Your task to perform on an android device: empty trash in the gmail app Image 0: 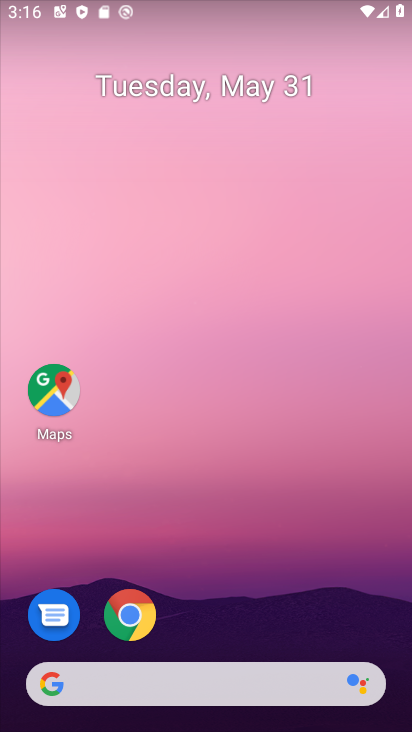
Step 0: drag from (281, 672) to (174, 115)
Your task to perform on an android device: empty trash in the gmail app Image 1: 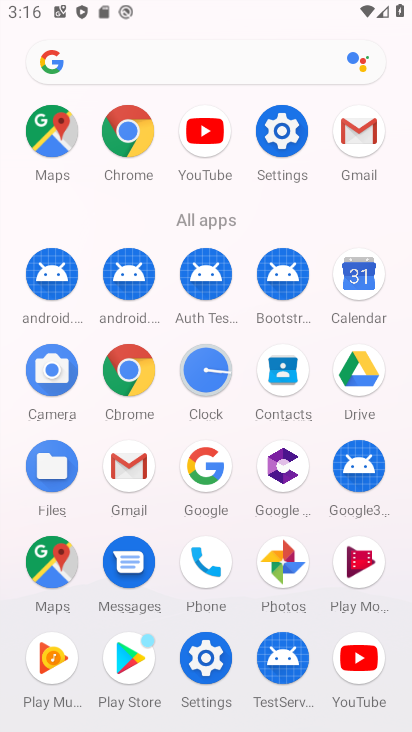
Step 1: click (128, 454)
Your task to perform on an android device: empty trash in the gmail app Image 2: 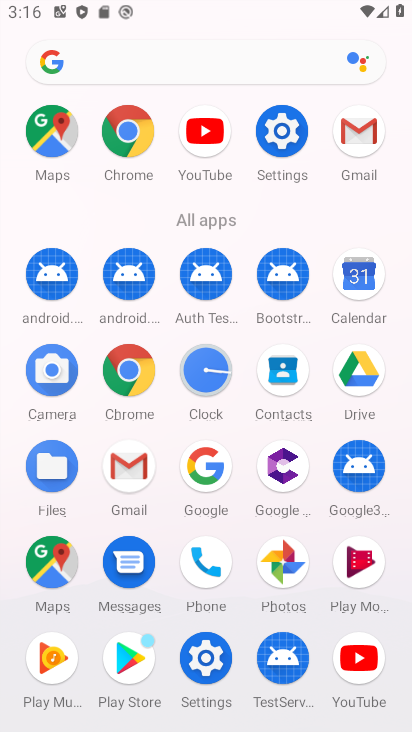
Step 2: click (128, 454)
Your task to perform on an android device: empty trash in the gmail app Image 3: 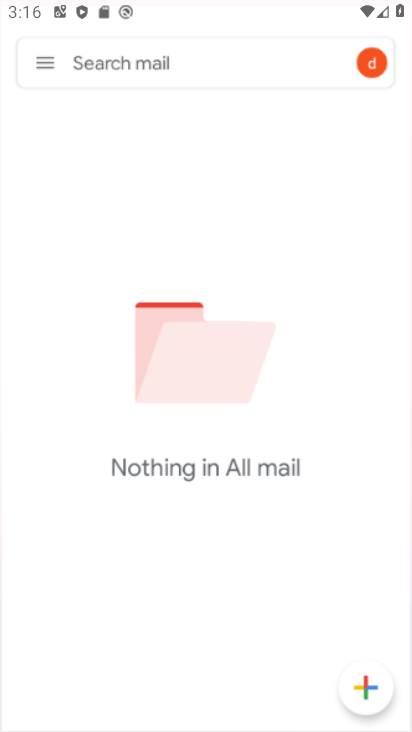
Step 3: click (129, 456)
Your task to perform on an android device: empty trash in the gmail app Image 4: 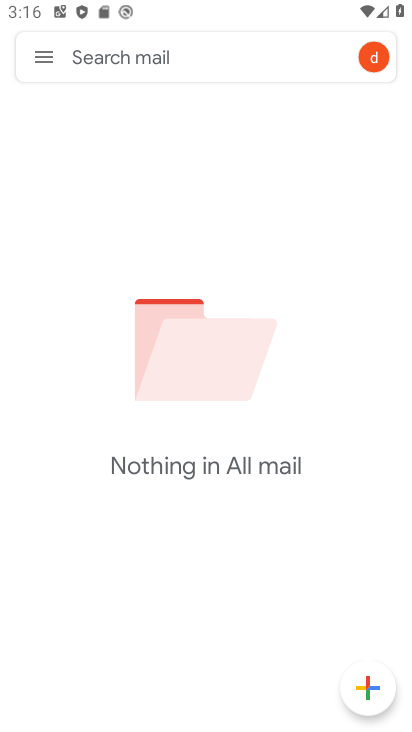
Step 4: click (42, 58)
Your task to perform on an android device: empty trash in the gmail app Image 5: 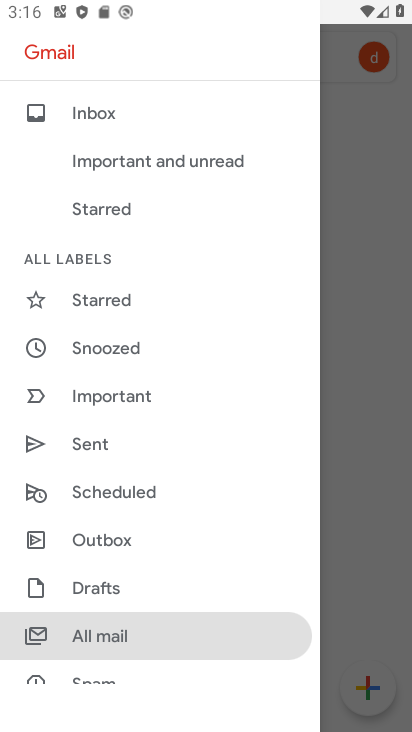
Step 5: drag from (138, 529) to (144, 157)
Your task to perform on an android device: empty trash in the gmail app Image 6: 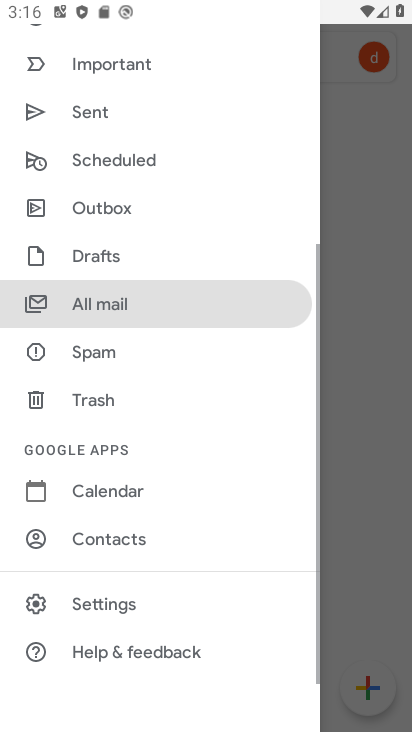
Step 6: drag from (169, 491) to (182, 109)
Your task to perform on an android device: empty trash in the gmail app Image 7: 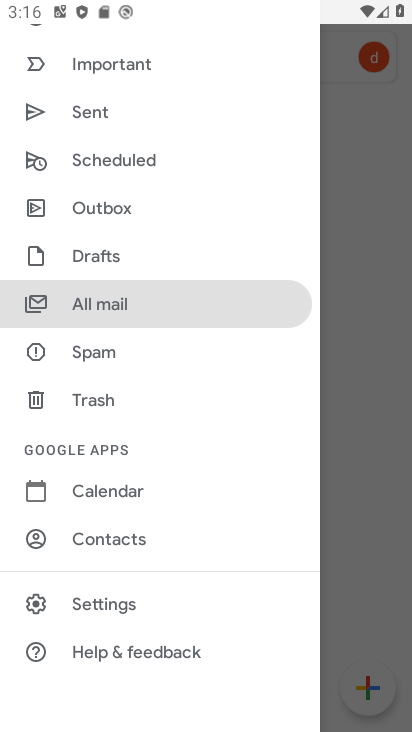
Step 7: click (84, 389)
Your task to perform on an android device: empty trash in the gmail app Image 8: 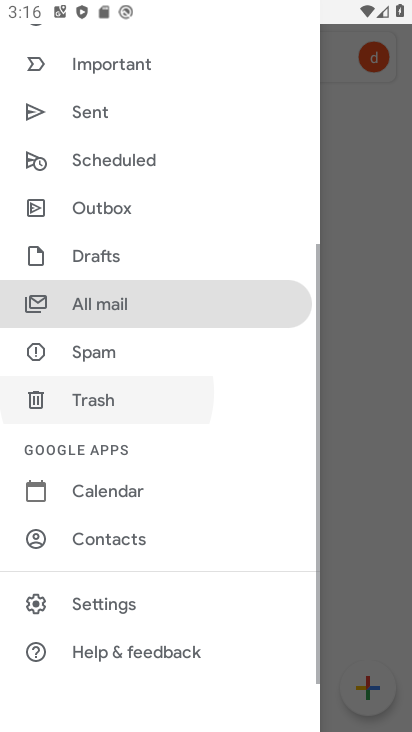
Step 8: click (84, 389)
Your task to perform on an android device: empty trash in the gmail app Image 9: 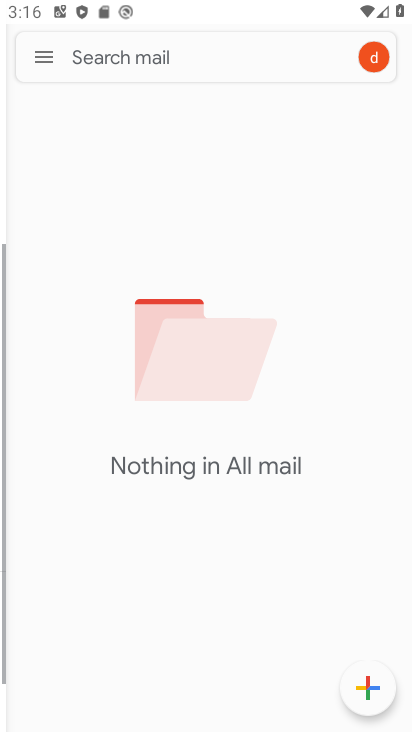
Step 9: click (93, 395)
Your task to perform on an android device: empty trash in the gmail app Image 10: 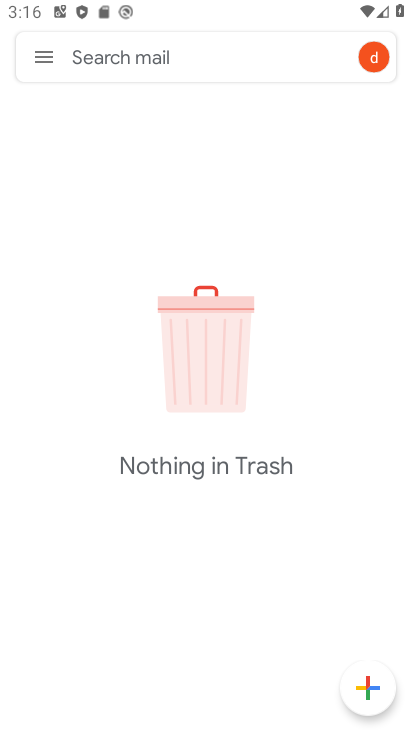
Step 10: task complete